Your task to perform on an android device: set the timer Image 0: 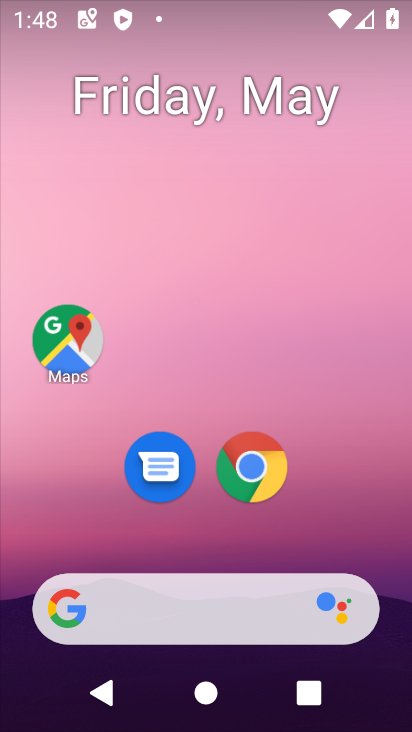
Step 0: drag from (325, 522) to (273, 45)
Your task to perform on an android device: set the timer Image 1: 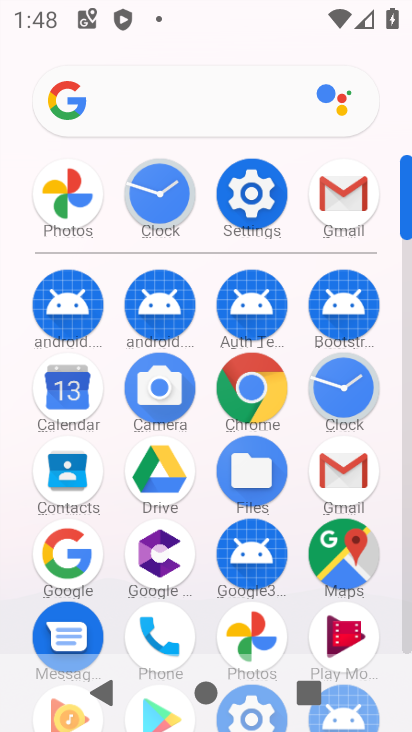
Step 1: click (157, 194)
Your task to perform on an android device: set the timer Image 2: 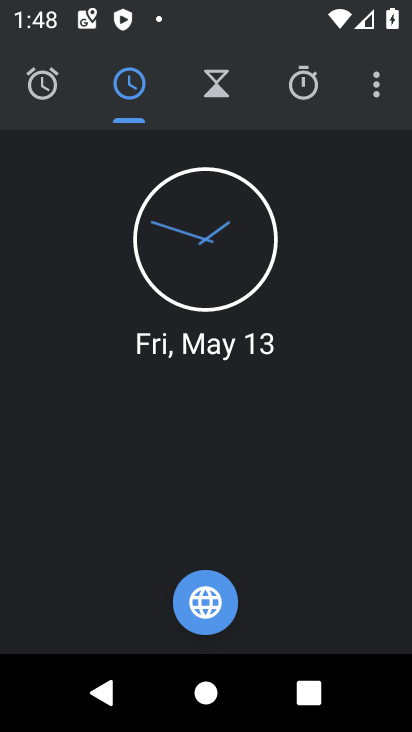
Step 2: click (221, 86)
Your task to perform on an android device: set the timer Image 3: 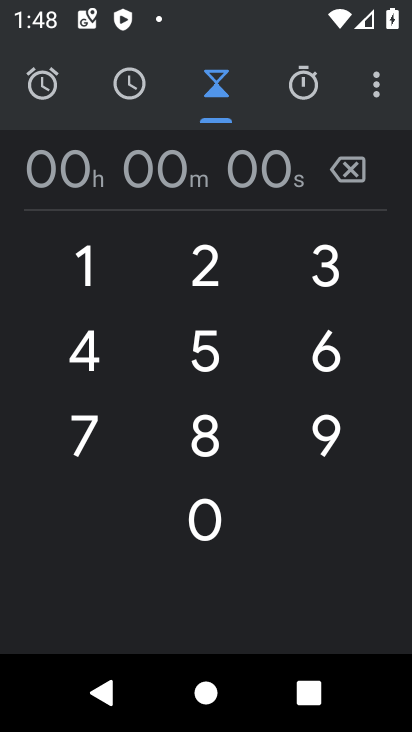
Step 3: type "123"
Your task to perform on an android device: set the timer Image 4: 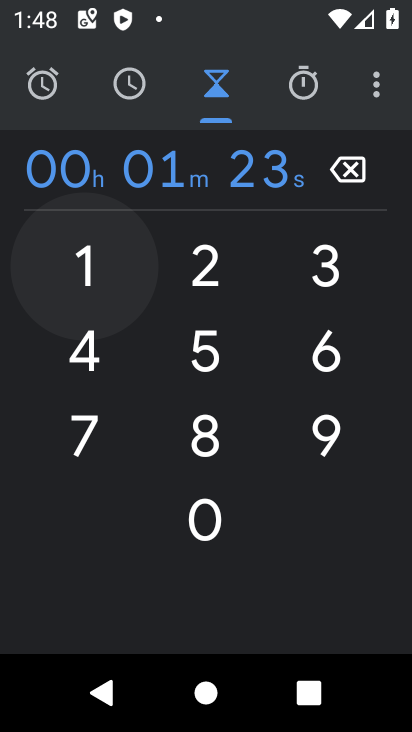
Step 4: type ""
Your task to perform on an android device: set the timer Image 5: 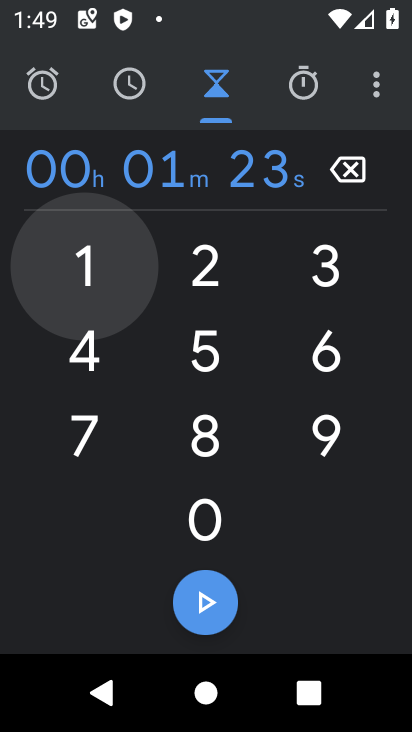
Step 5: click (208, 609)
Your task to perform on an android device: set the timer Image 6: 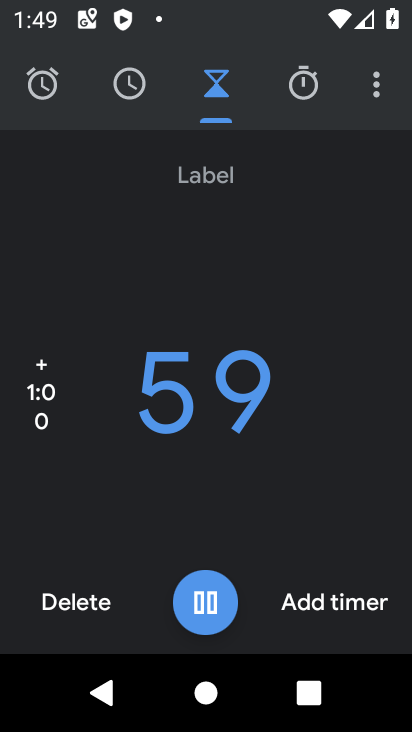
Step 6: click (209, 609)
Your task to perform on an android device: set the timer Image 7: 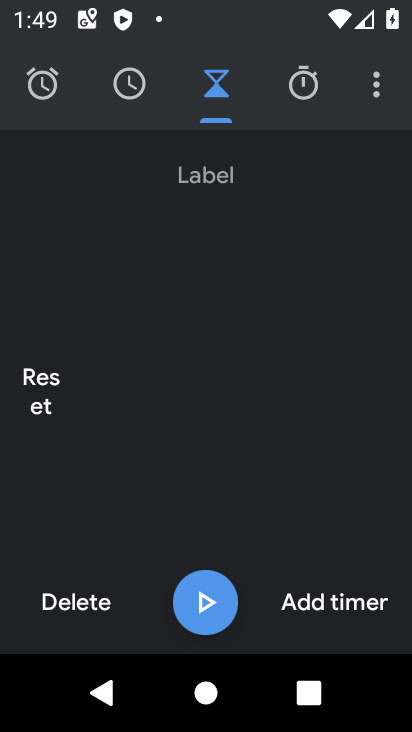
Step 7: task complete